Your task to perform on an android device: change the clock style Image 0: 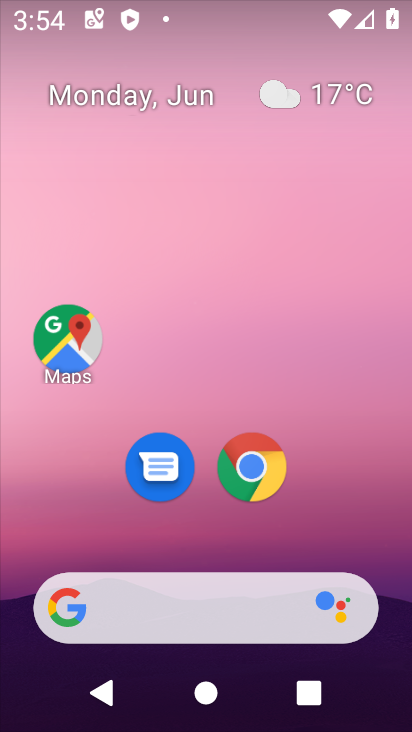
Step 0: drag from (219, 555) to (251, 16)
Your task to perform on an android device: change the clock style Image 1: 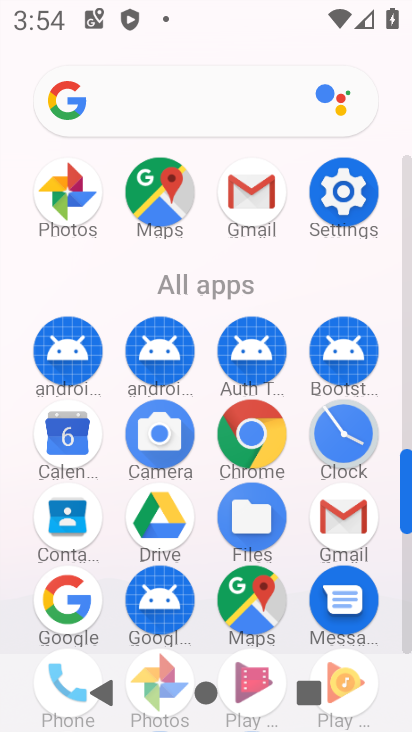
Step 1: click (349, 429)
Your task to perform on an android device: change the clock style Image 2: 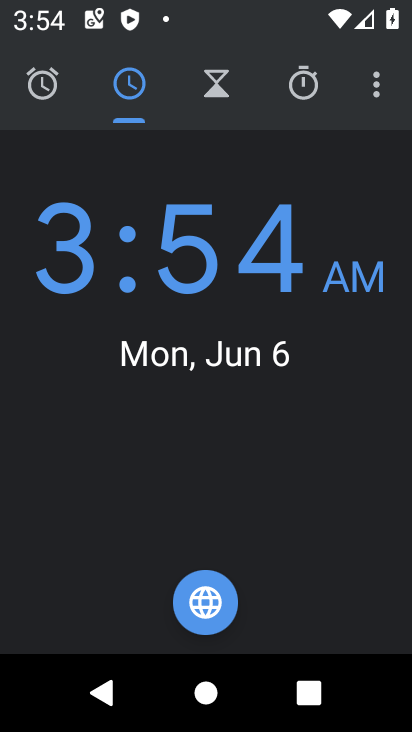
Step 2: click (373, 93)
Your task to perform on an android device: change the clock style Image 3: 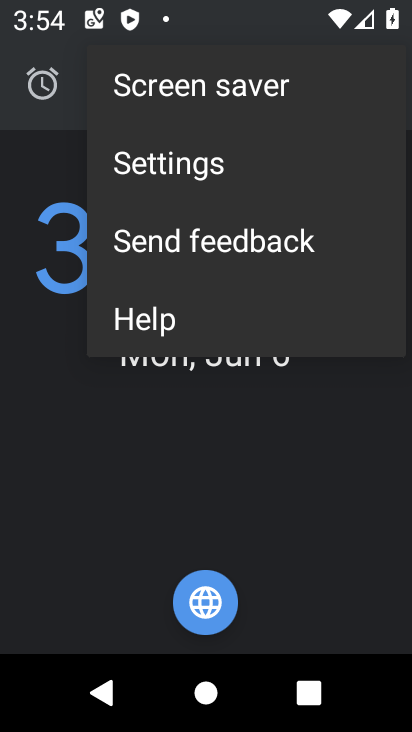
Step 3: click (168, 177)
Your task to perform on an android device: change the clock style Image 4: 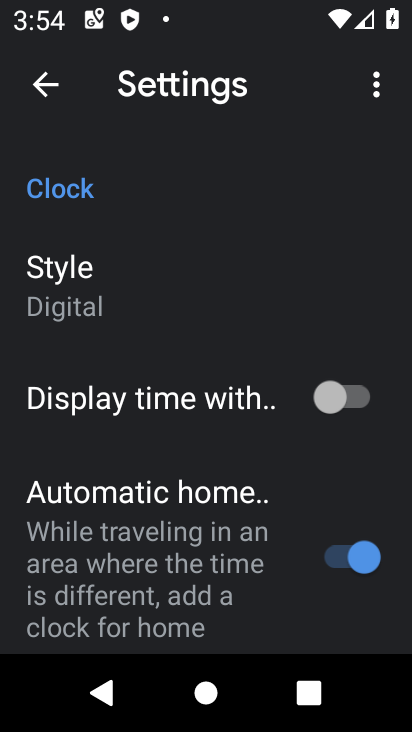
Step 4: click (92, 290)
Your task to perform on an android device: change the clock style Image 5: 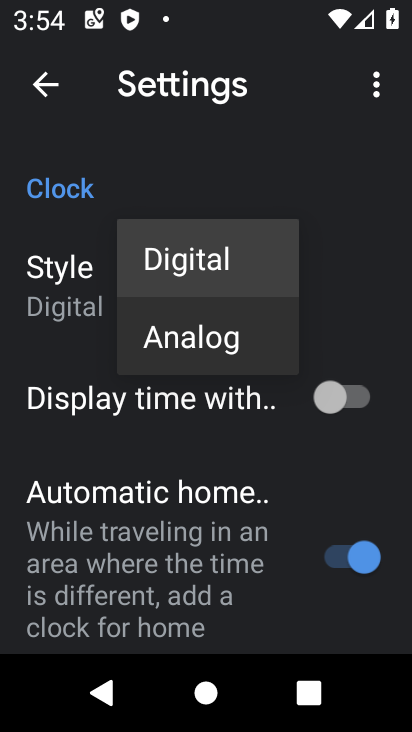
Step 5: click (154, 347)
Your task to perform on an android device: change the clock style Image 6: 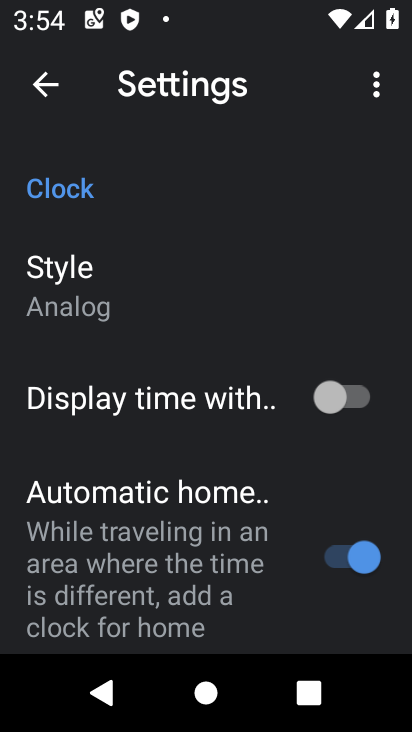
Step 6: task complete